Your task to perform on an android device: Go to network settings Image 0: 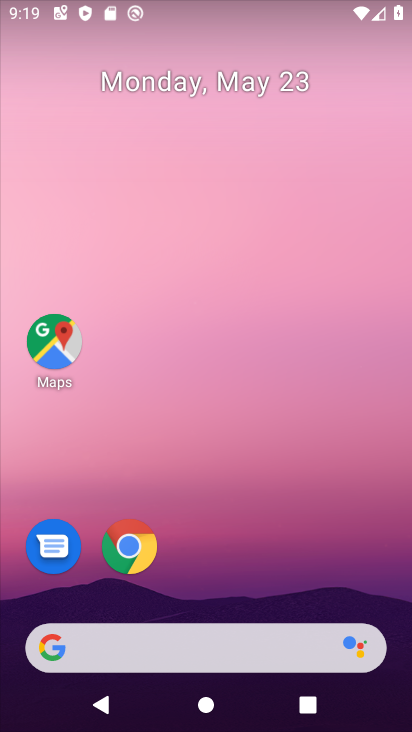
Step 0: drag from (367, 607) to (327, 0)
Your task to perform on an android device: Go to network settings Image 1: 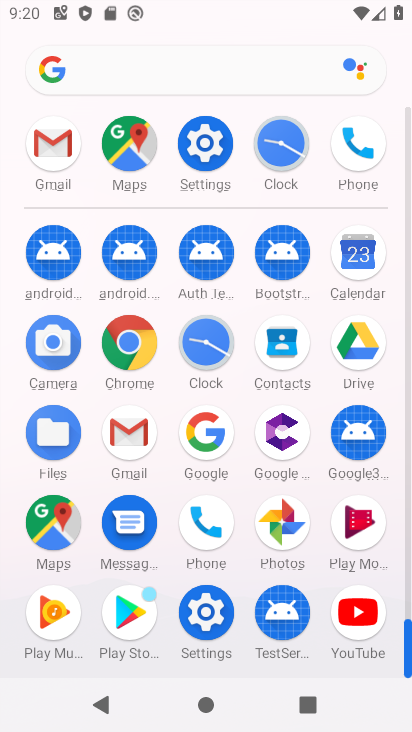
Step 1: click (204, 608)
Your task to perform on an android device: Go to network settings Image 2: 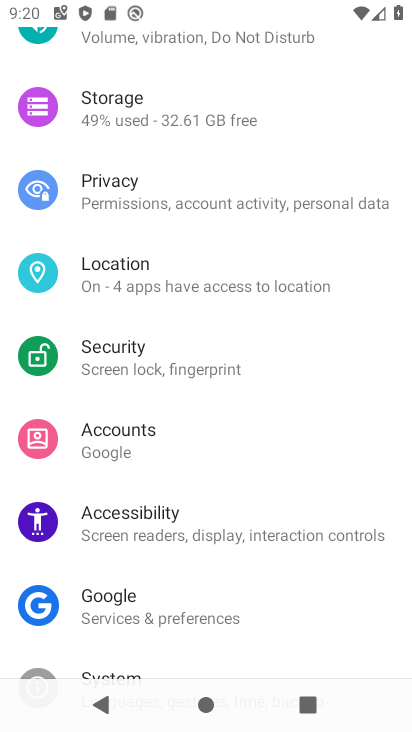
Step 2: drag from (288, 121) to (289, 546)
Your task to perform on an android device: Go to network settings Image 3: 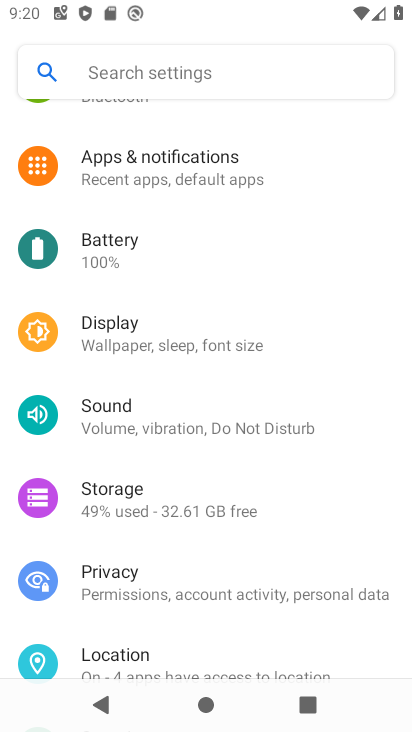
Step 3: drag from (286, 308) to (300, 598)
Your task to perform on an android device: Go to network settings Image 4: 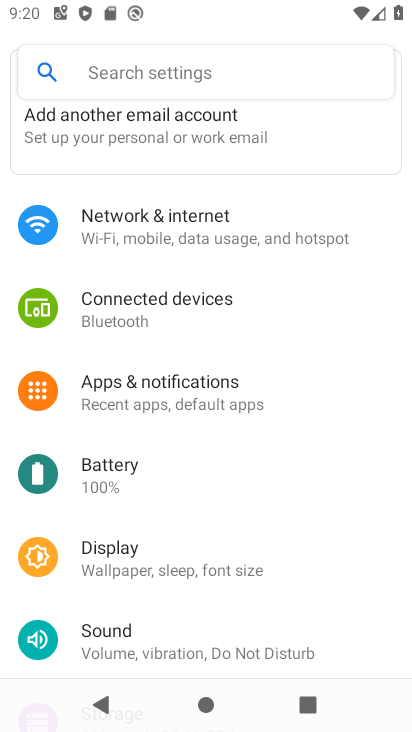
Step 4: click (134, 214)
Your task to perform on an android device: Go to network settings Image 5: 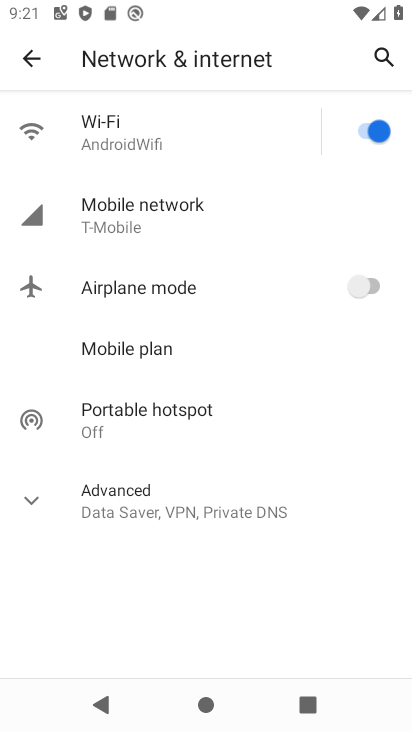
Step 5: click (29, 499)
Your task to perform on an android device: Go to network settings Image 6: 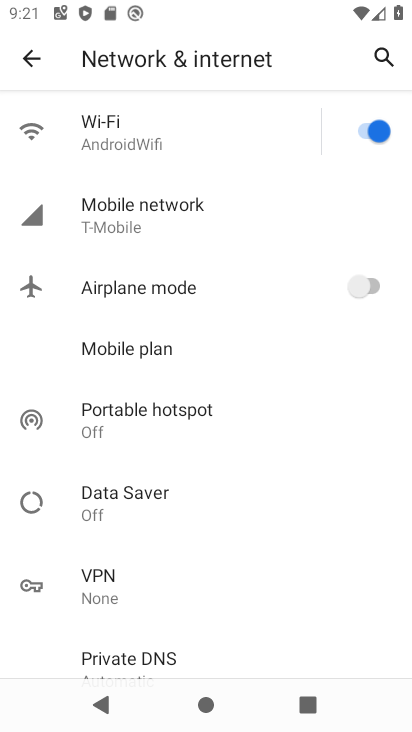
Step 6: click (119, 222)
Your task to perform on an android device: Go to network settings Image 7: 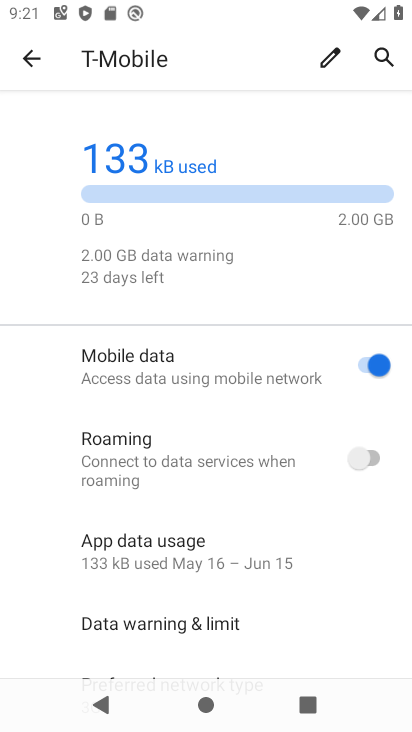
Step 7: task complete